Your task to perform on an android device: uninstall "Facebook Lite" Image 0: 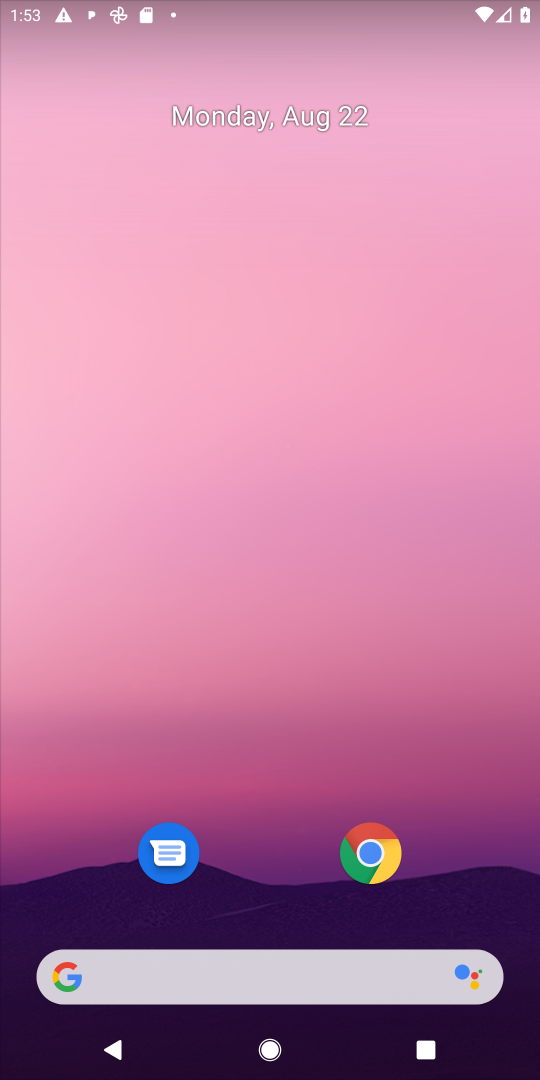
Step 0: drag from (258, 847) to (286, 75)
Your task to perform on an android device: uninstall "Facebook Lite" Image 1: 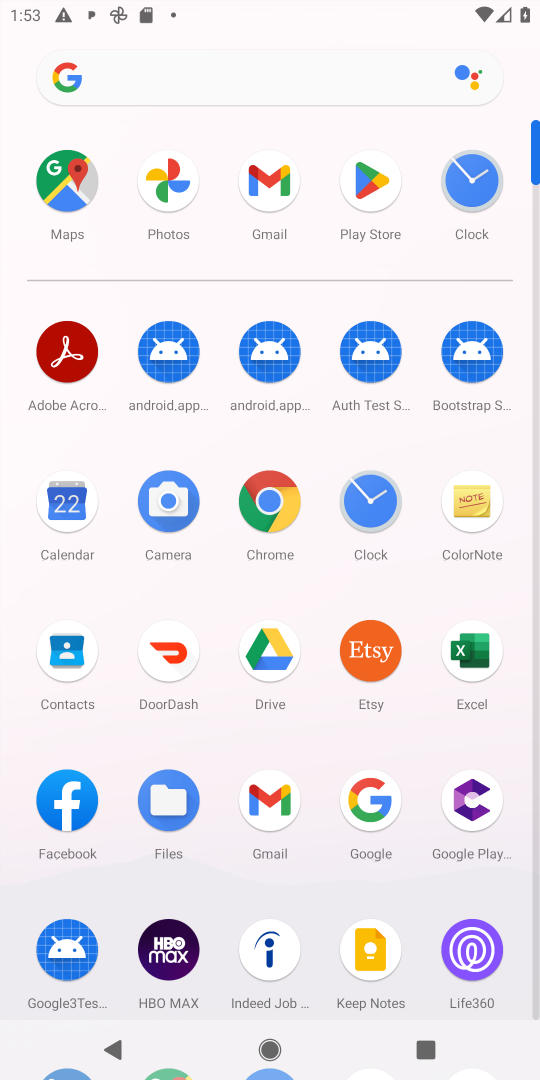
Step 1: click (353, 195)
Your task to perform on an android device: uninstall "Facebook Lite" Image 2: 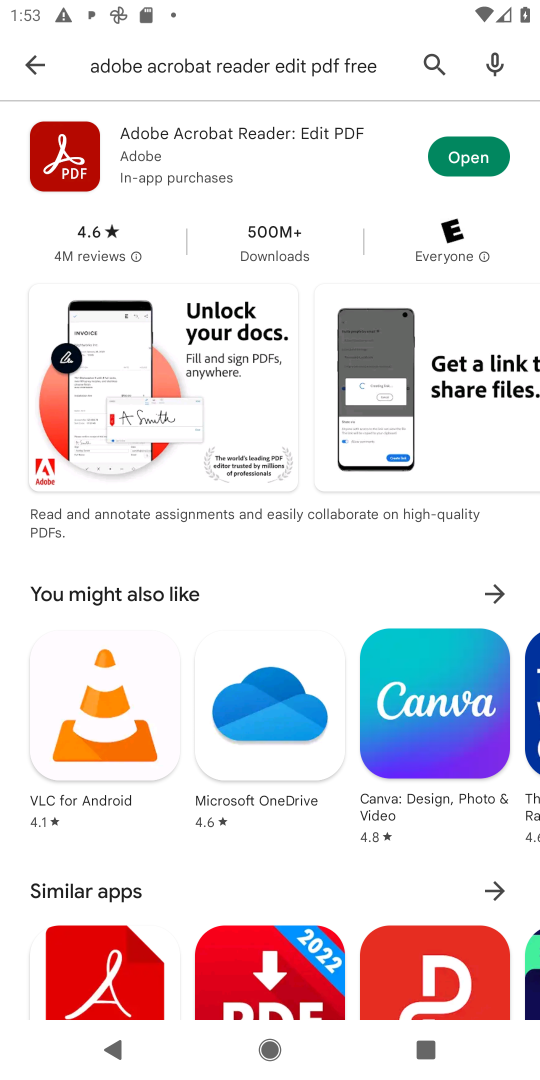
Step 2: click (21, 37)
Your task to perform on an android device: uninstall "Facebook Lite" Image 3: 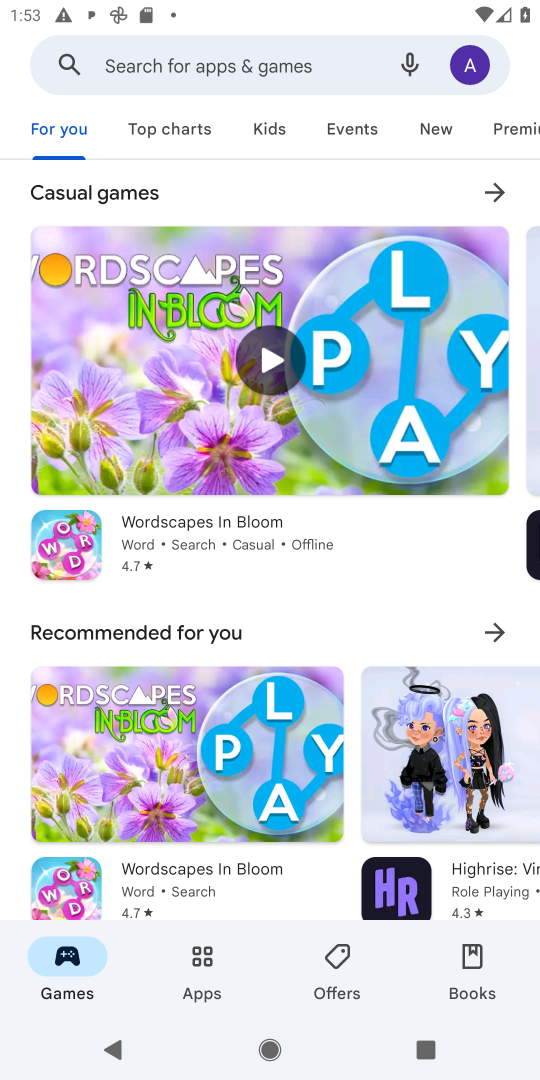
Step 3: click (260, 67)
Your task to perform on an android device: uninstall "Facebook Lite" Image 4: 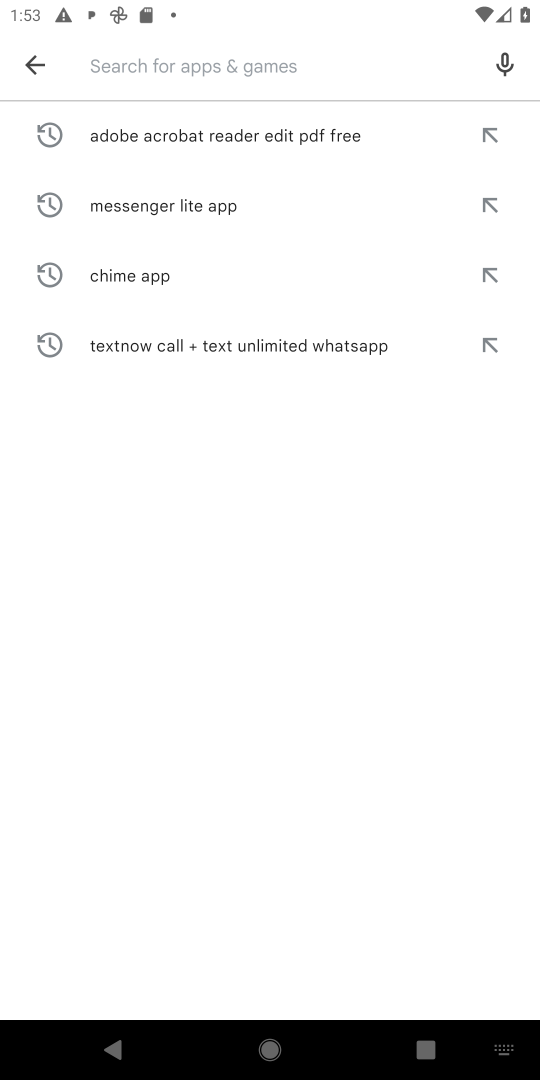
Step 4: type "Facebook Lite "
Your task to perform on an android device: uninstall "Facebook Lite" Image 5: 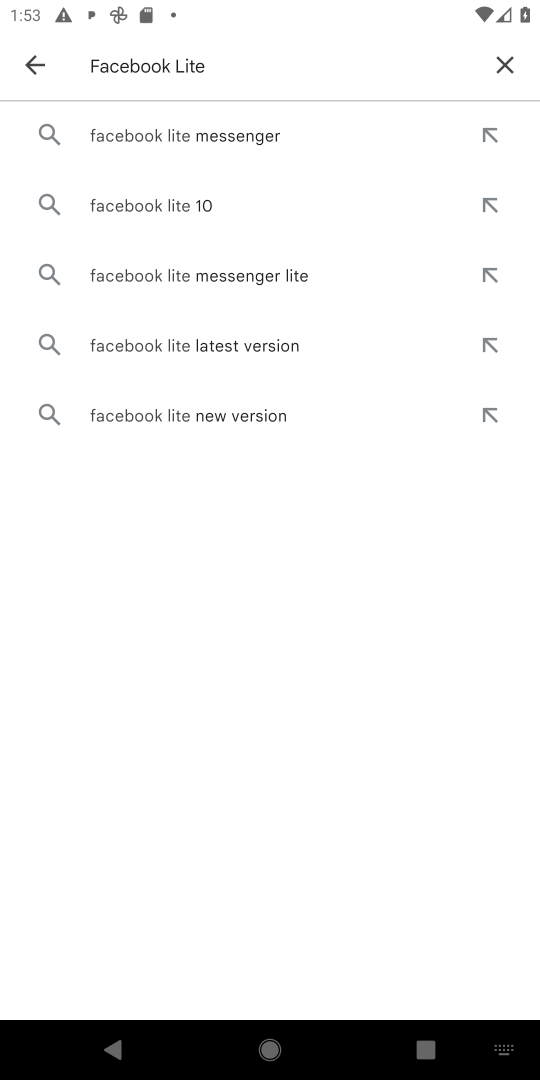
Step 5: click (189, 204)
Your task to perform on an android device: uninstall "Facebook Lite" Image 6: 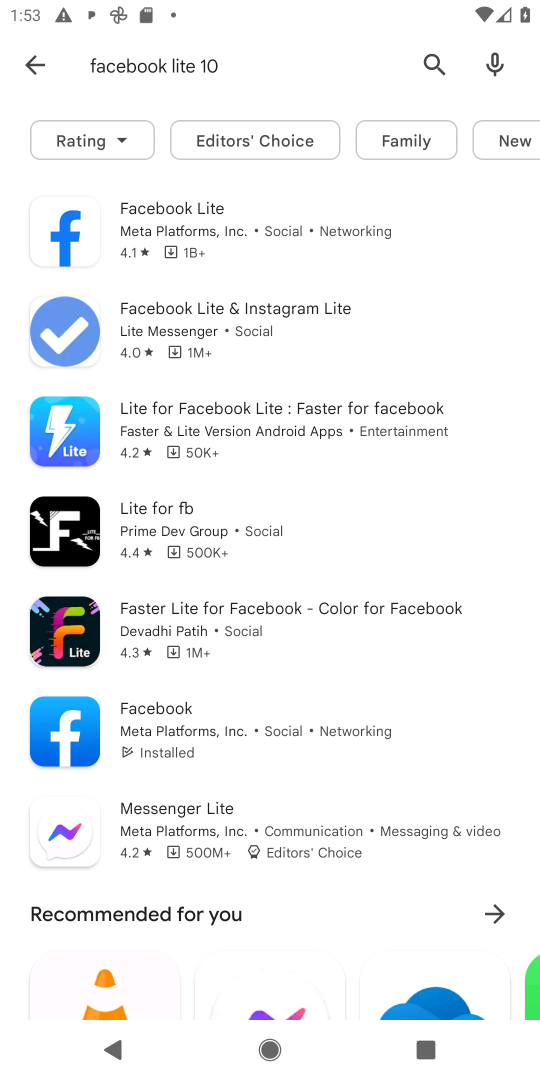
Step 6: click (177, 266)
Your task to perform on an android device: uninstall "Facebook Lite" Image 7: 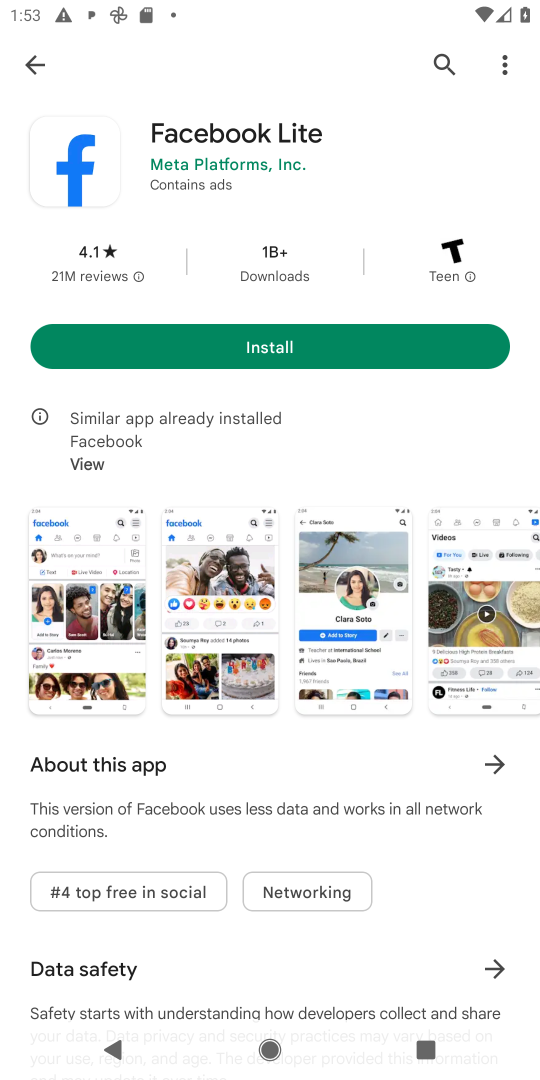
Step 7: task complete